Your task to perform on an android device: Go to internet settings Image 0: 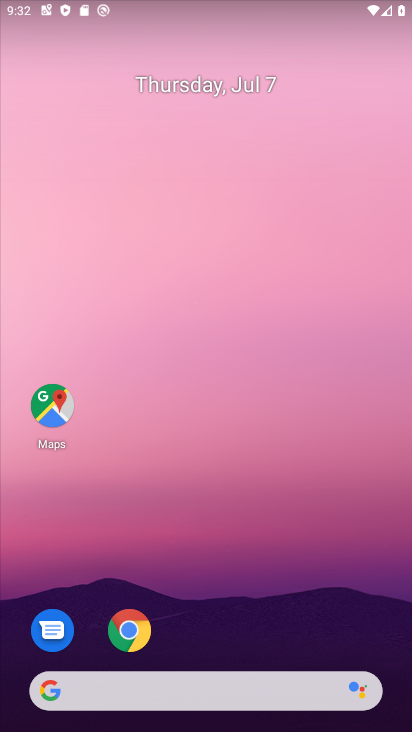
Step 0: drag from (181, 629) to (232, 249)
Your task to perform on an android device: Go to internet settings Image 1: 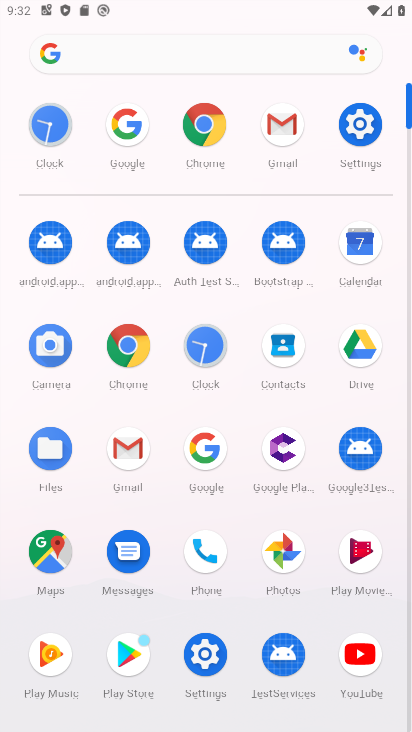
Step 1: click (350, 134)
Your task to perform on an android device: Go to internet settings Image 2: 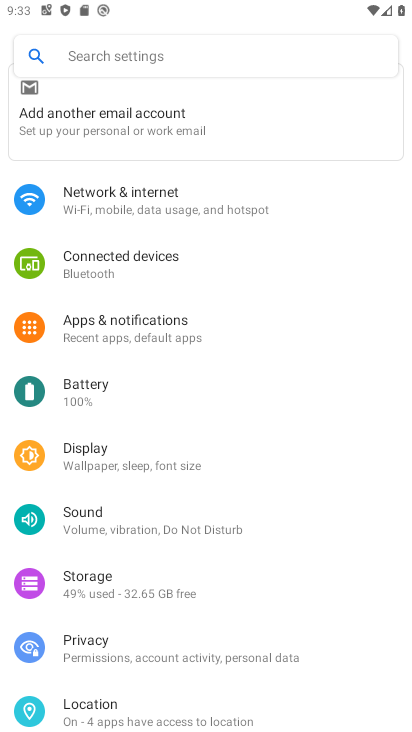
Step 2: click (197, 200)
Your task to perform on an android device: Go to internet settings Image 3: 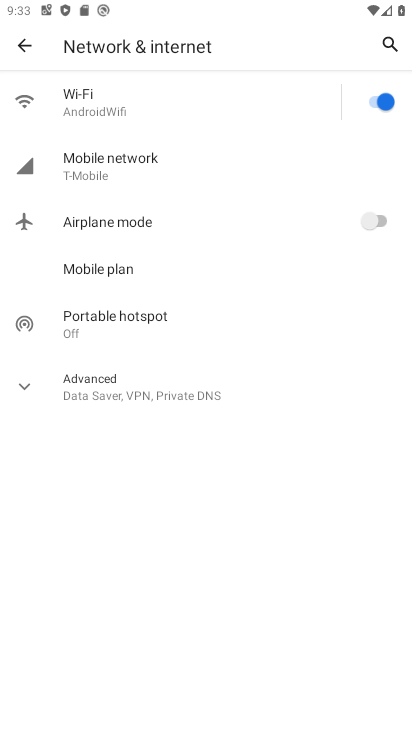
Step 3: click (89, 382)
Your task to perform on an android device: Go to internet settings Image 4: 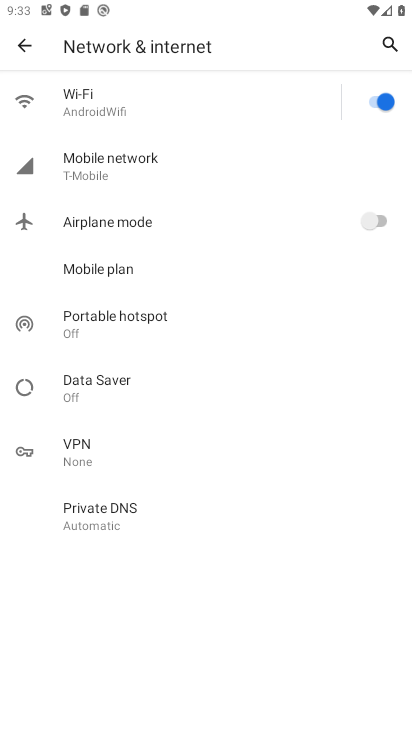
Step 4: task complete